Your task to perform on an android device: turn off sleep mode Image 0: 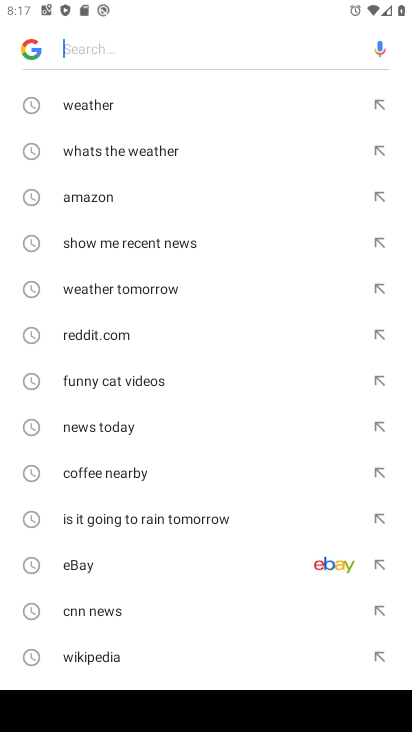
Step 0: press home button
Your task to perform on an android device: turn off sleep mode Image 1: 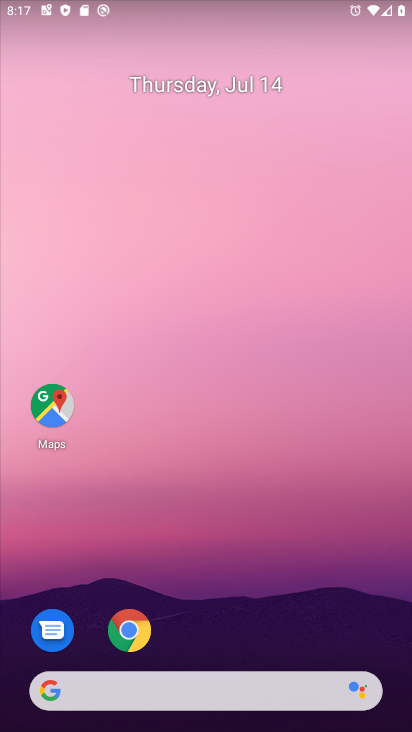
Step 1: drag from (241, 720) to (227, 227)
Your task to perform on an android device: turn off sleep mode Image 2: 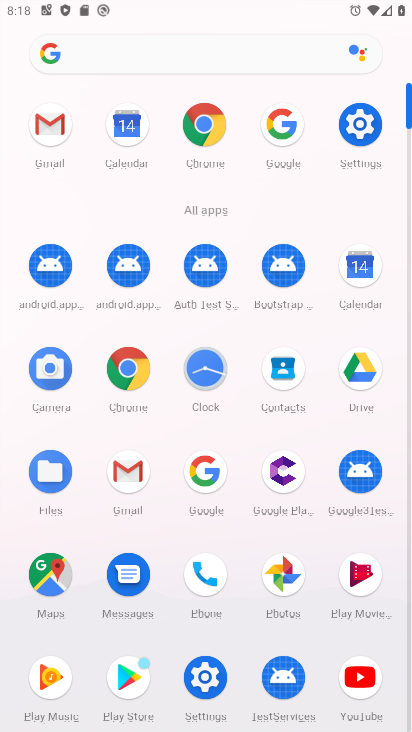
Step 2: click (364, 129)
Your task to perform on an android device: turn off sleep mode Image 3: 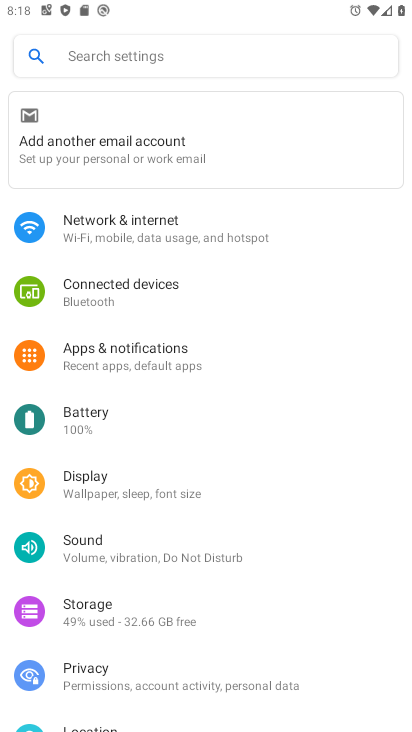
Step 3: click (141, 493)
Your task to perform on an android device: turn off sleep mode Image 4: 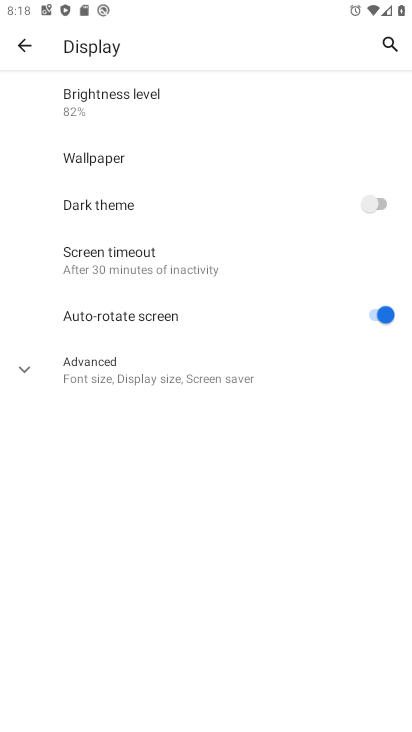
Step 4: task complete